Your task to perform on an android device: Open Maps and search for coffee Image 0: 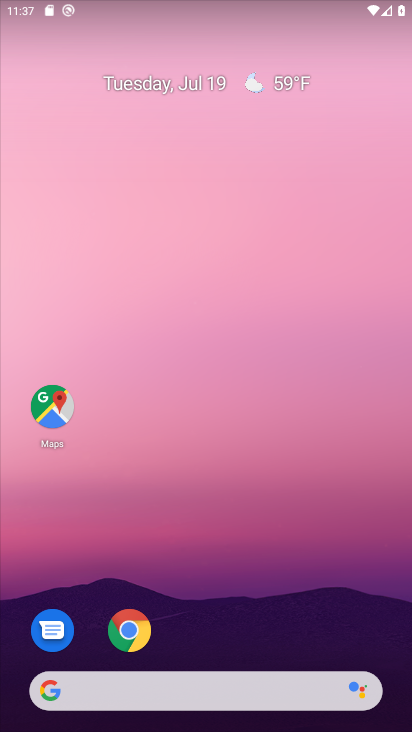
Step 0: click (52, 407)
Your task to perform on an android device: Open Maps and search for coffee Image 1: 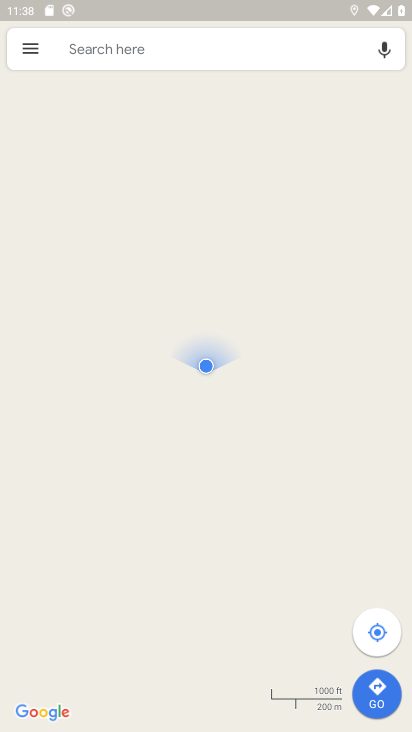
Step 1: click (113, 51)
Your task to perform on an android device: Open Maps and search for coffee Image 2: 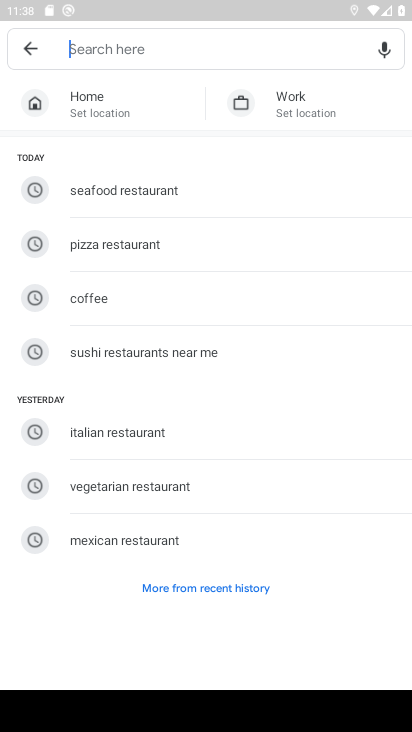
Step 2: type "coffee"
Your task to perform on an android device: Open Maps and search for coffee Image 3: 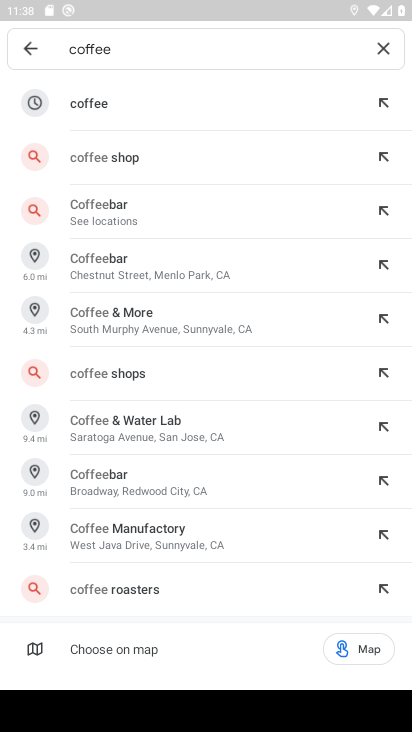
Step 3: click (96, 102)
Your task to perform on an android device: Open Maps and search for coffee Image 4: 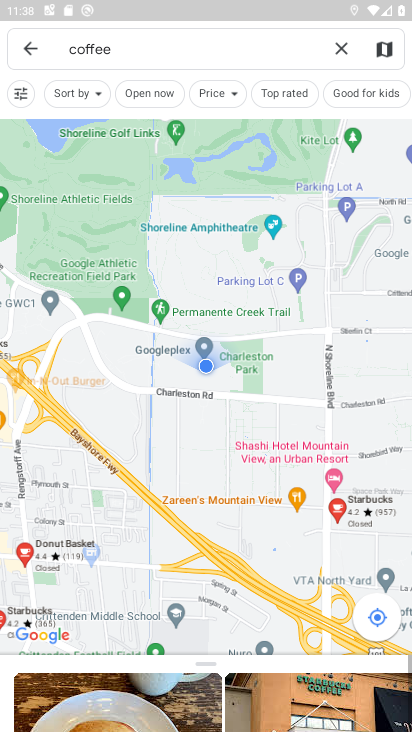
Step 4: task complete